Your task to perform on an android device: What's the weather? Image 0: 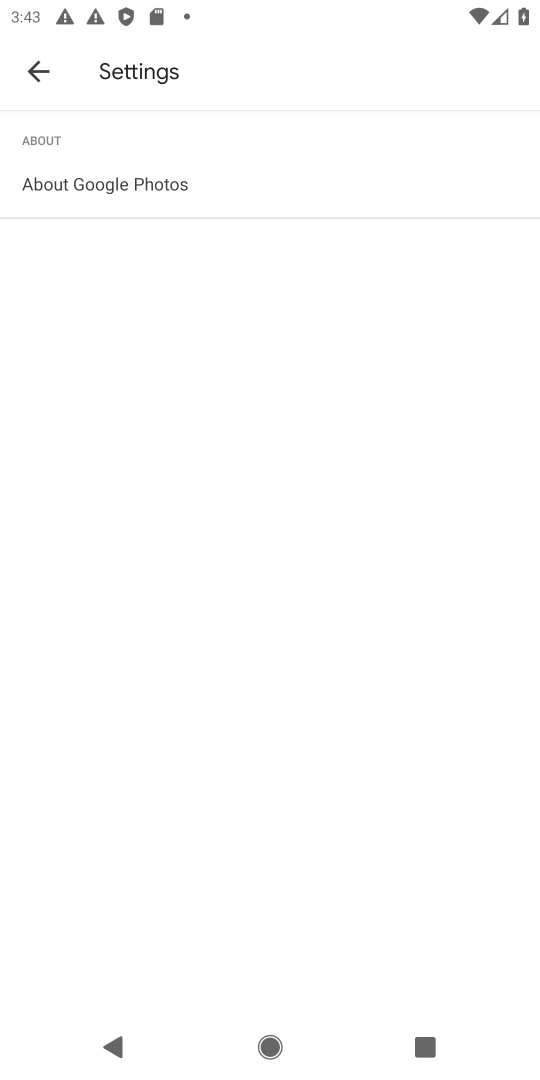
Step 0: press home button
Your task to perform on an android device: What's the weather? Image 1: 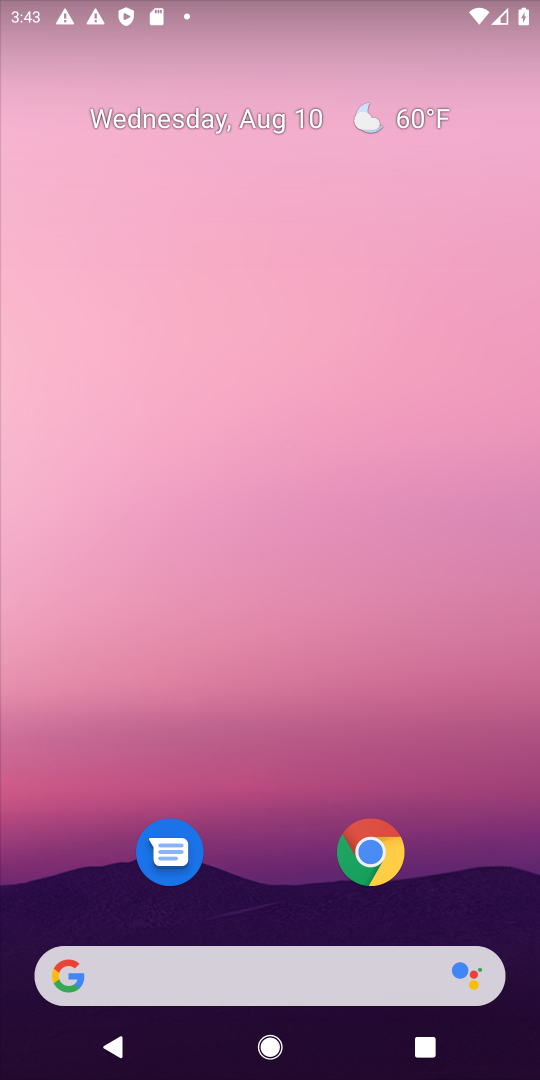
Step 1: drag from (471, 825) to (343, 806)
Your task to perform on an android device: What's the weather? Image 2: 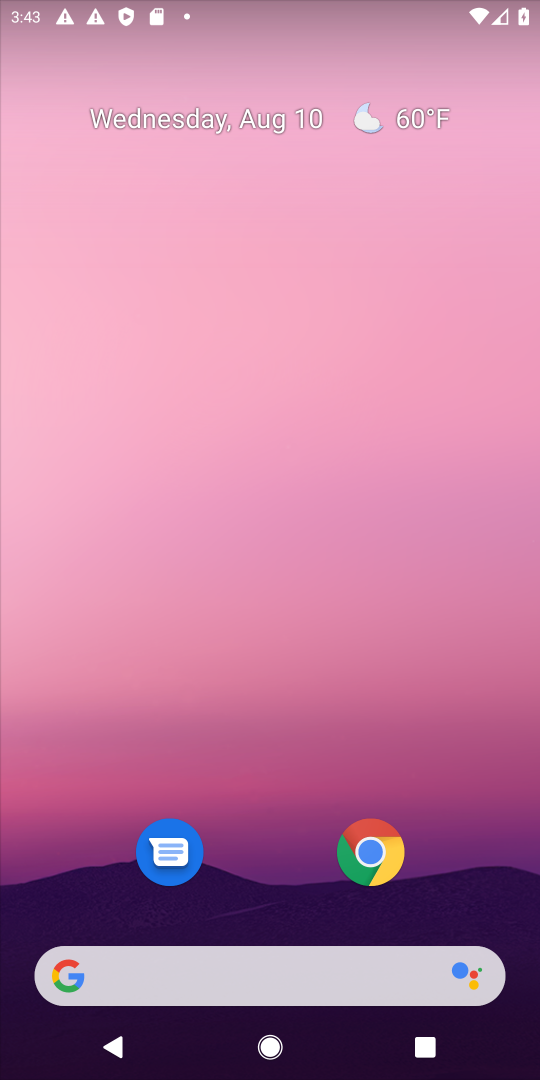
Step 2: click (401, 113)
Your task to perform on an android device: What's the weather? Image 3: 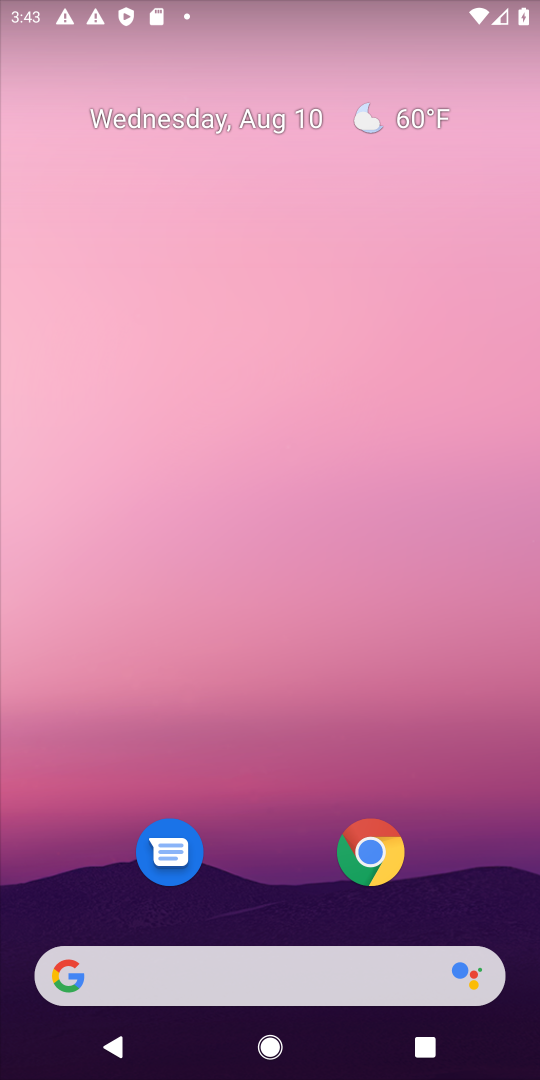
Step 3: click (409, 123)
Your task to perform on an android device: What's the weather? Image 4: 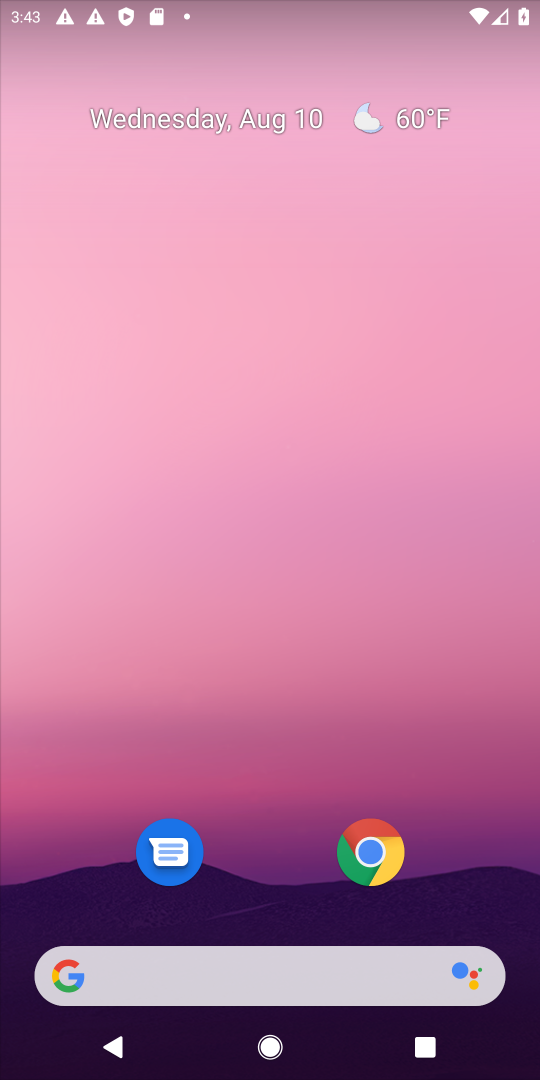
Step 4: click (413, 119)
Your task to perform on an android device: What's the weather? Image 5: 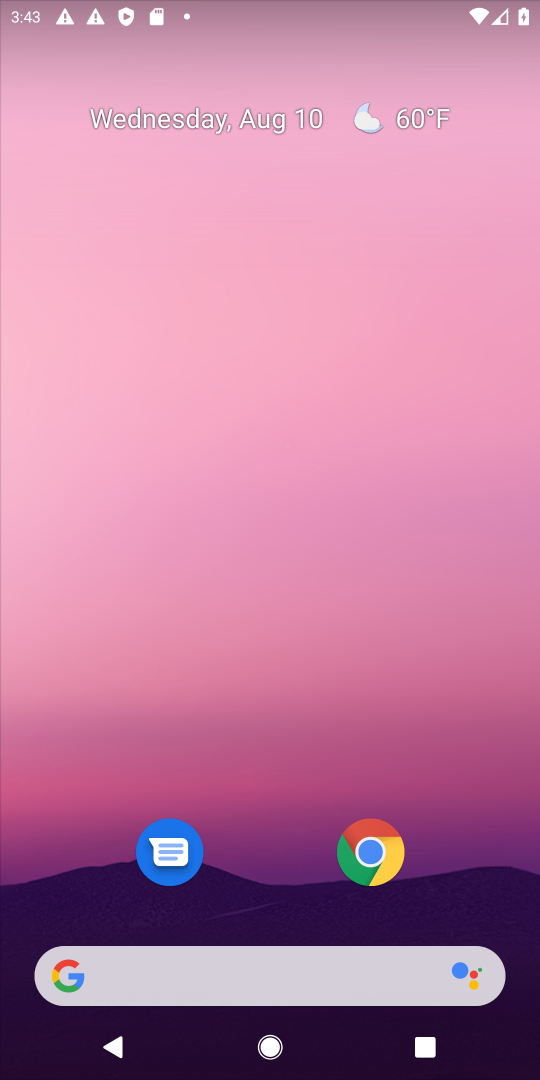
Step 5: click (413, 119)
Your task to perform on an android device: What's the weather? Image 6: 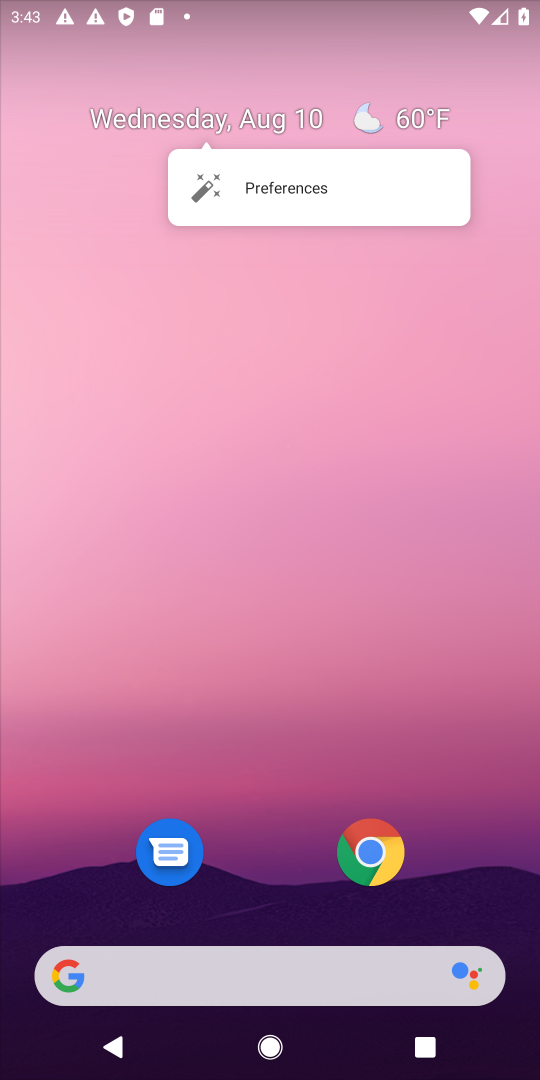
Step 6: click (413, 119)
Your task to perform on an android device: What's the weather? Image 7: 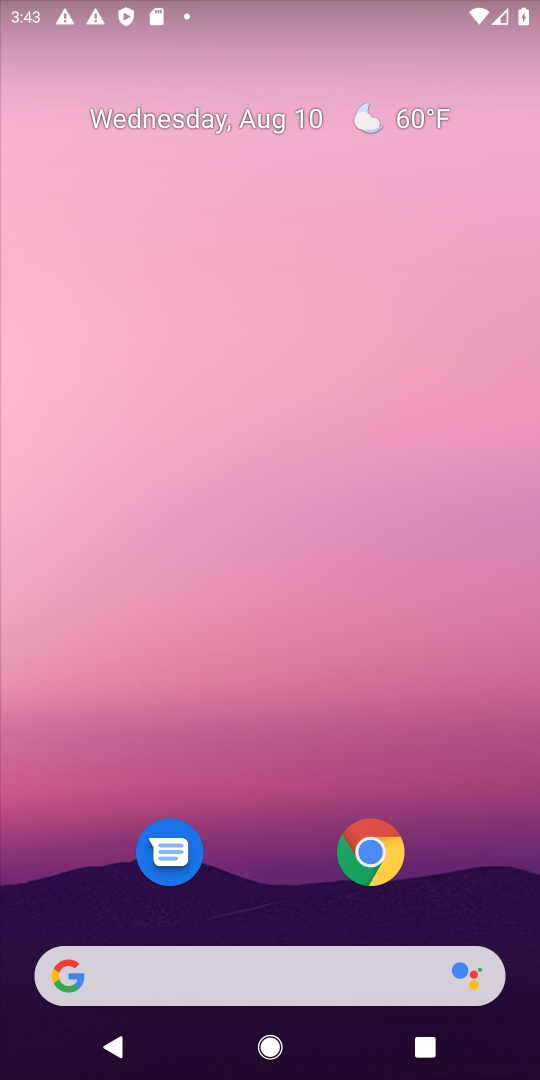
Step 7: click (417, 118)
Your task to perform on an android device: What's the weather? Image 8: 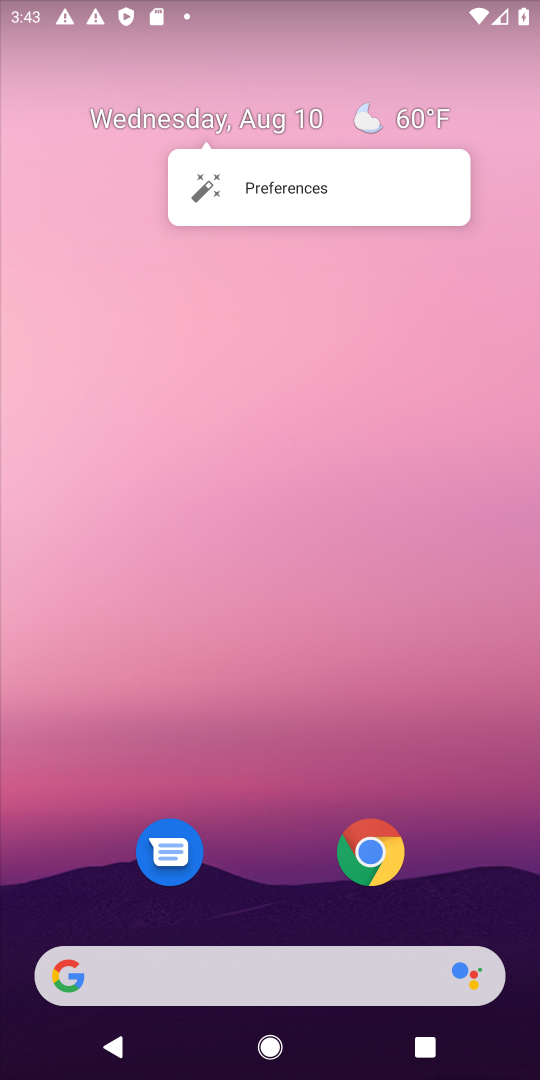
Step 8: click (404, 110)
Your task to perform on an android device: What's the weather? Image 9: 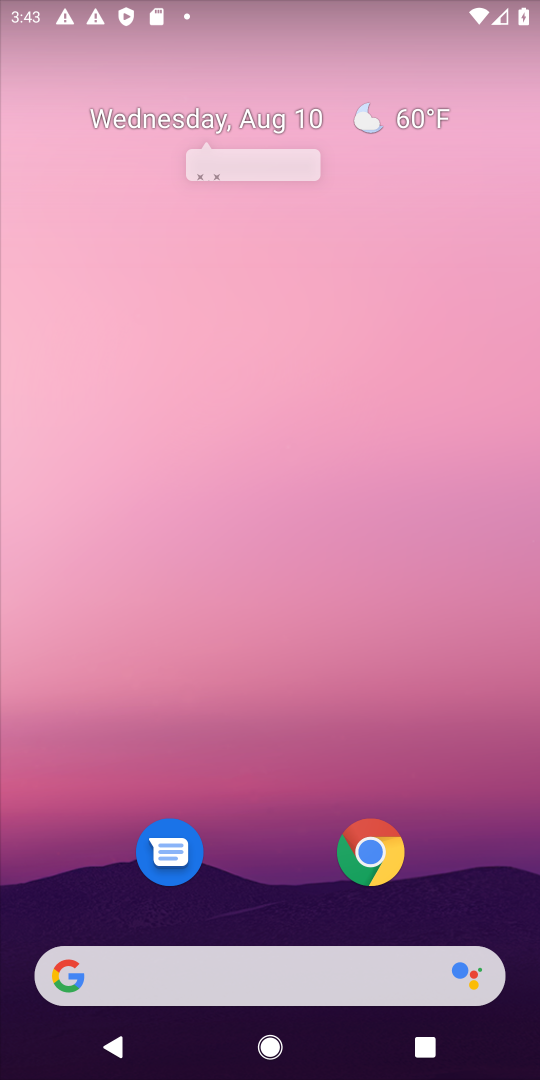
Step 9: click (404, 110)
Your task to perform on an android device: What's the weather? Image 10: 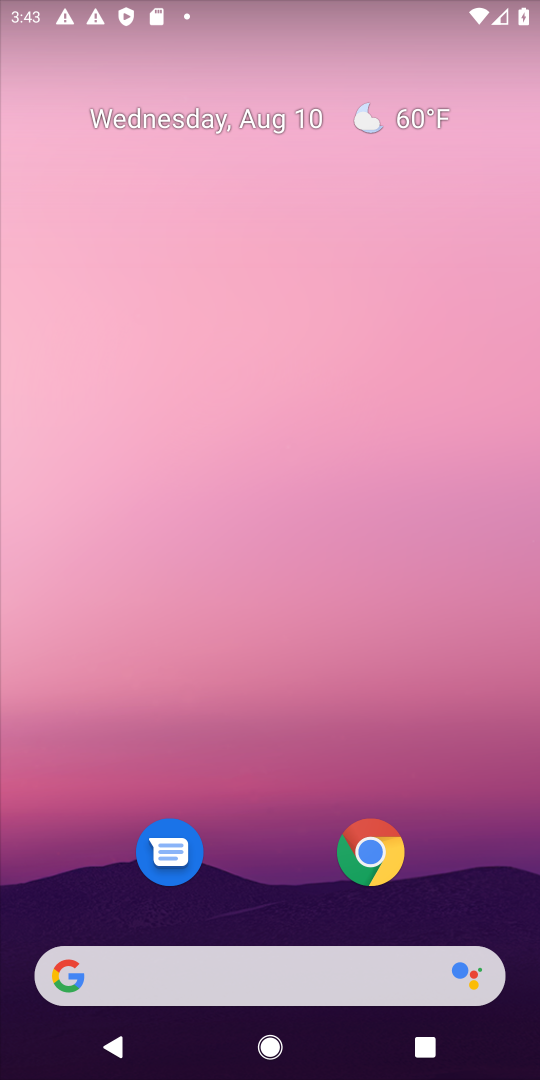
Step 10: click (404, 110)
Your task to perform on an android device: What's the weather? Image 11: 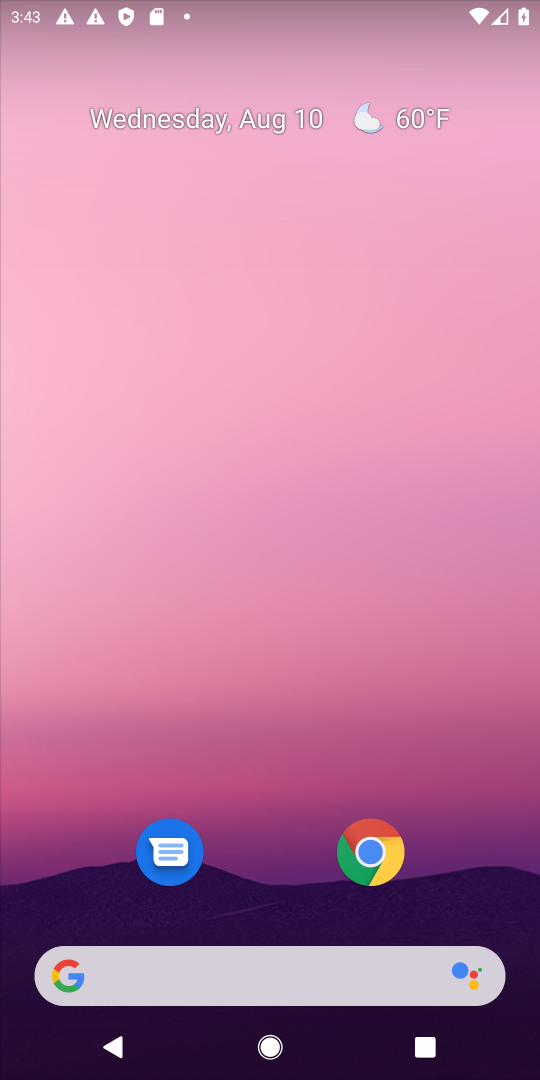
Step 11: drag from (295, 726) to (376, 0)
Your task to perform on an android device: What's the weather? Image 12: 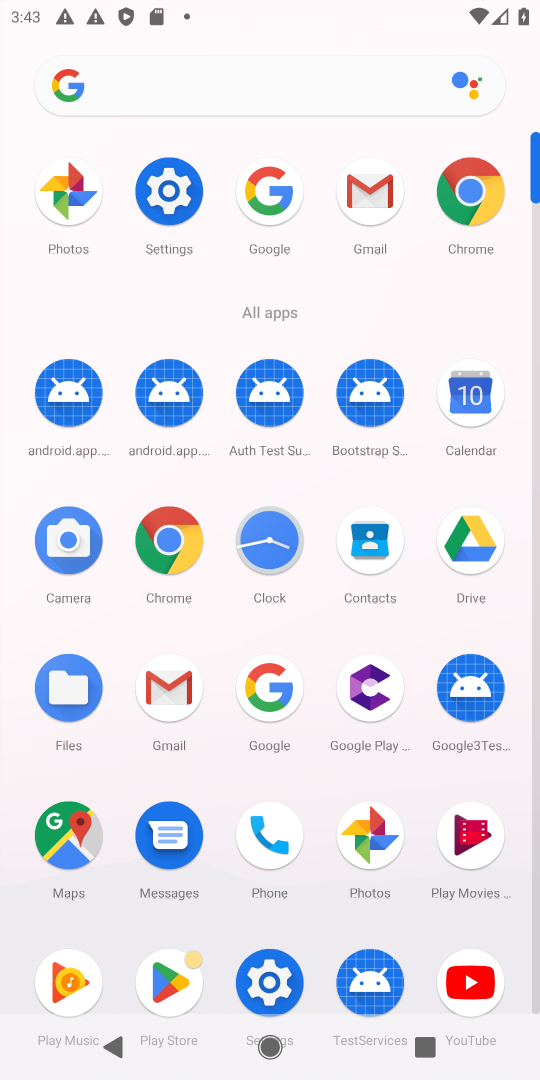
Step 12: click (169, 530)
Your task to perform on an android device: What's the weather? Image 13: 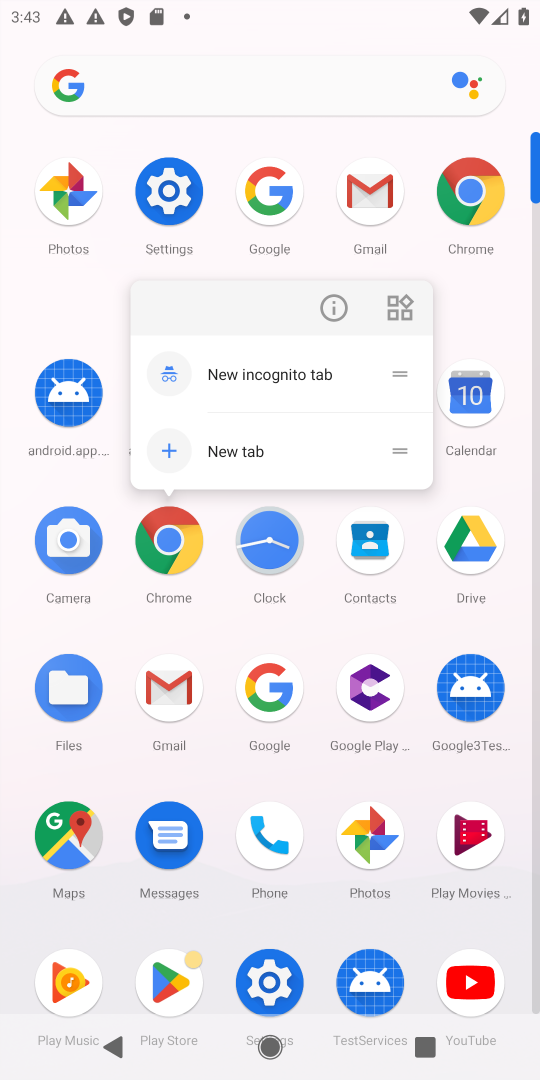
Step 13: click (168, 545)
Your task to perform on an android device: What's the weather? Image 14: 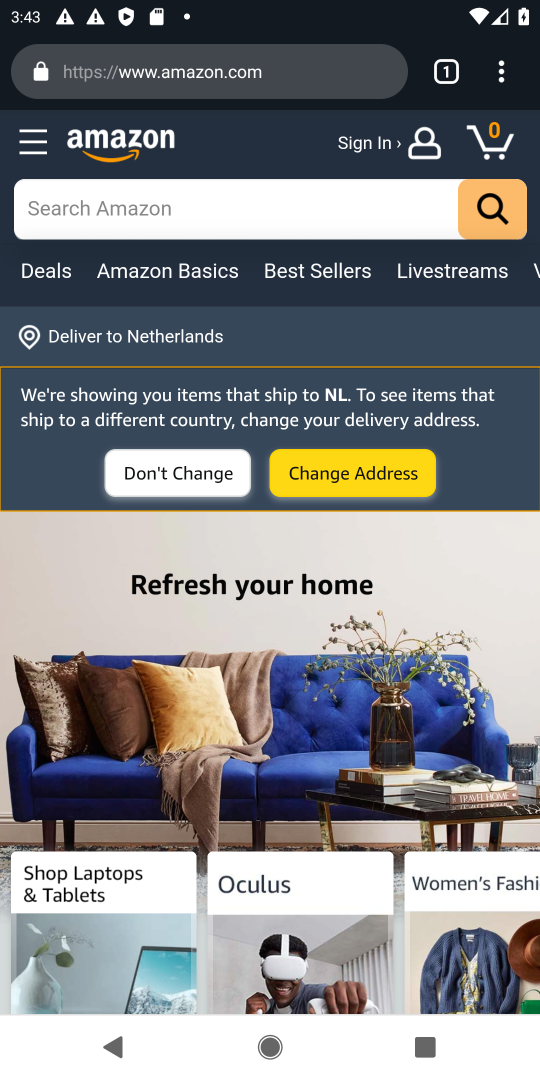
Step 14: click (363, 91)
Your task to perform on an android device: What's the weather? Image 15: 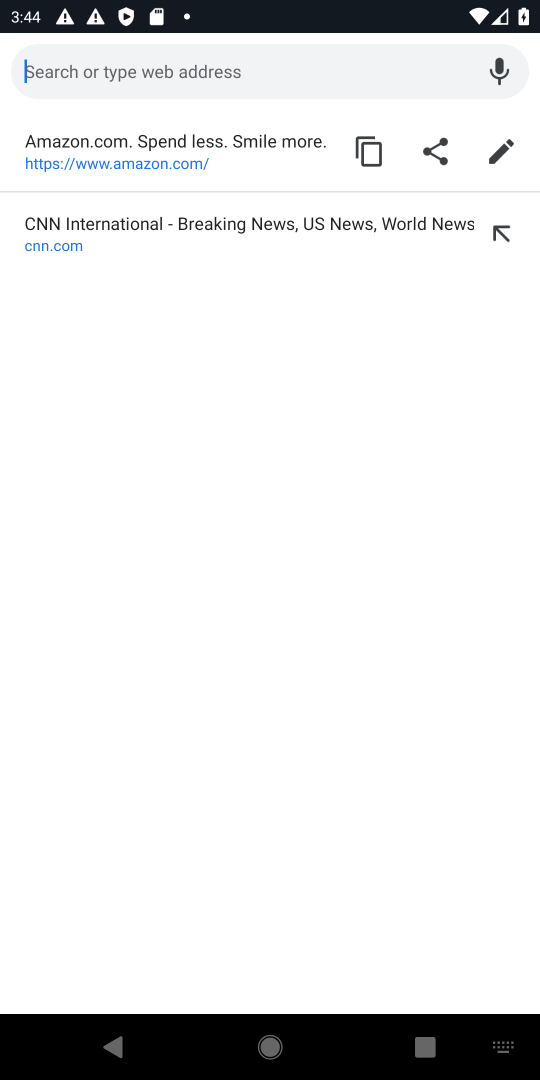
Step 15: type "weather"
Your task to perform on an android device: What's the weather? Image 16: 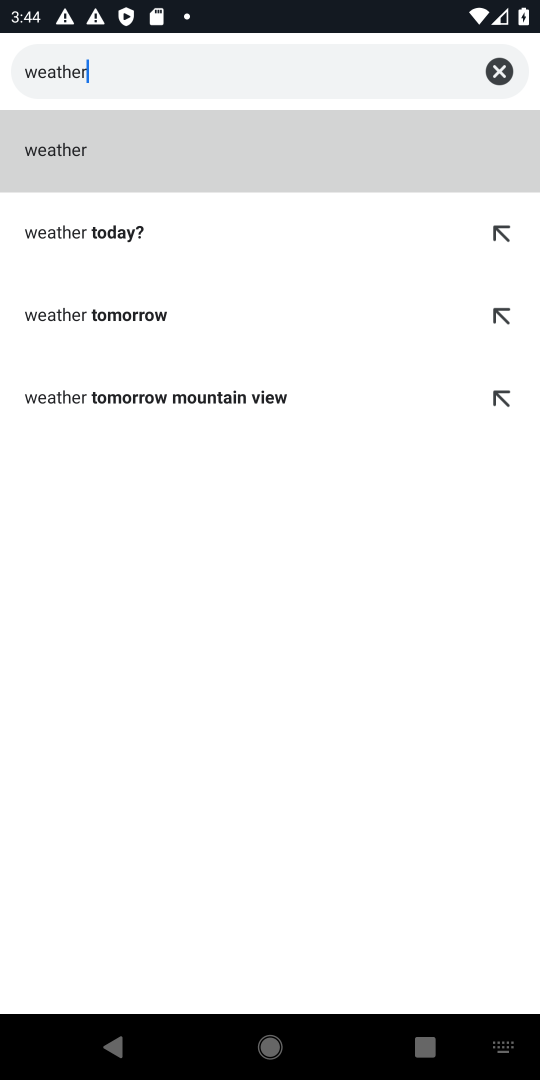
Step 16: click (37, 148)
Your task to perform on an android device: What's the weather? Image 17: 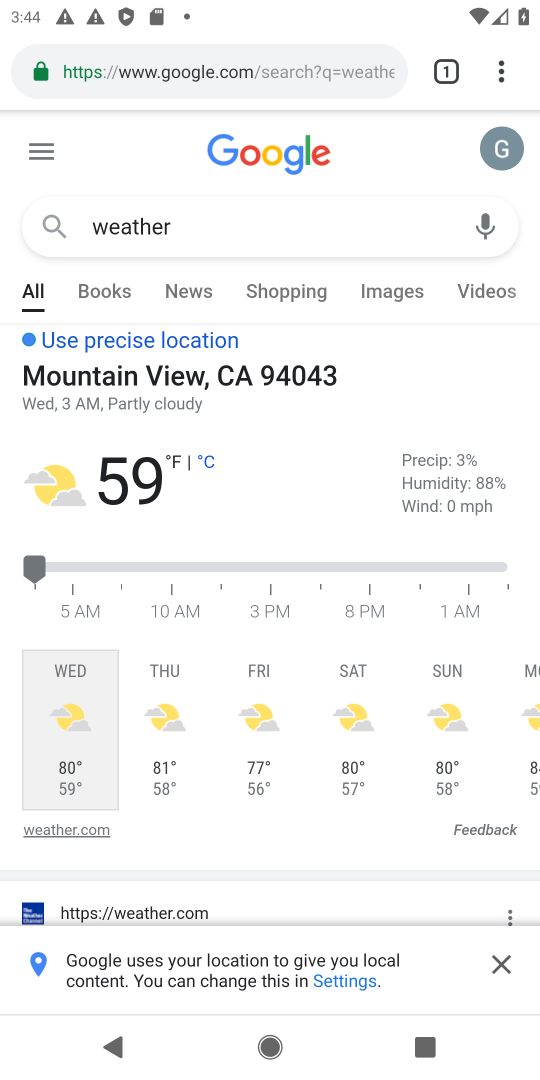
Step 17: task complete